Your task to perform on an android device: Search for "asus rog" on bestbuy.com, select the first entry, add it to the cart, then select checkout. Image 0: 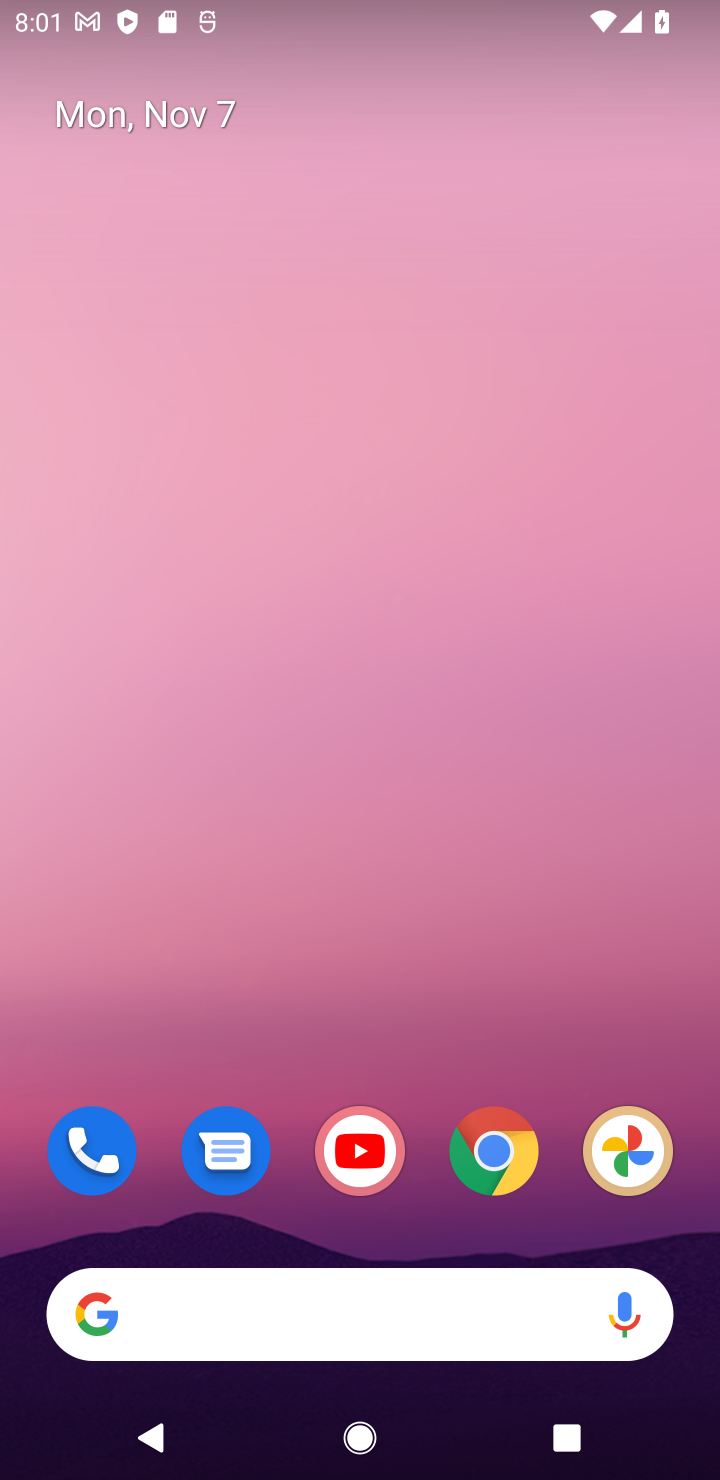
Step 0: click (516, 1142)
Your task to perform on an android device: Search for "asus rog" on bestbuy.com, select the first entry, add it to the cart, then select checkout. Image 1: 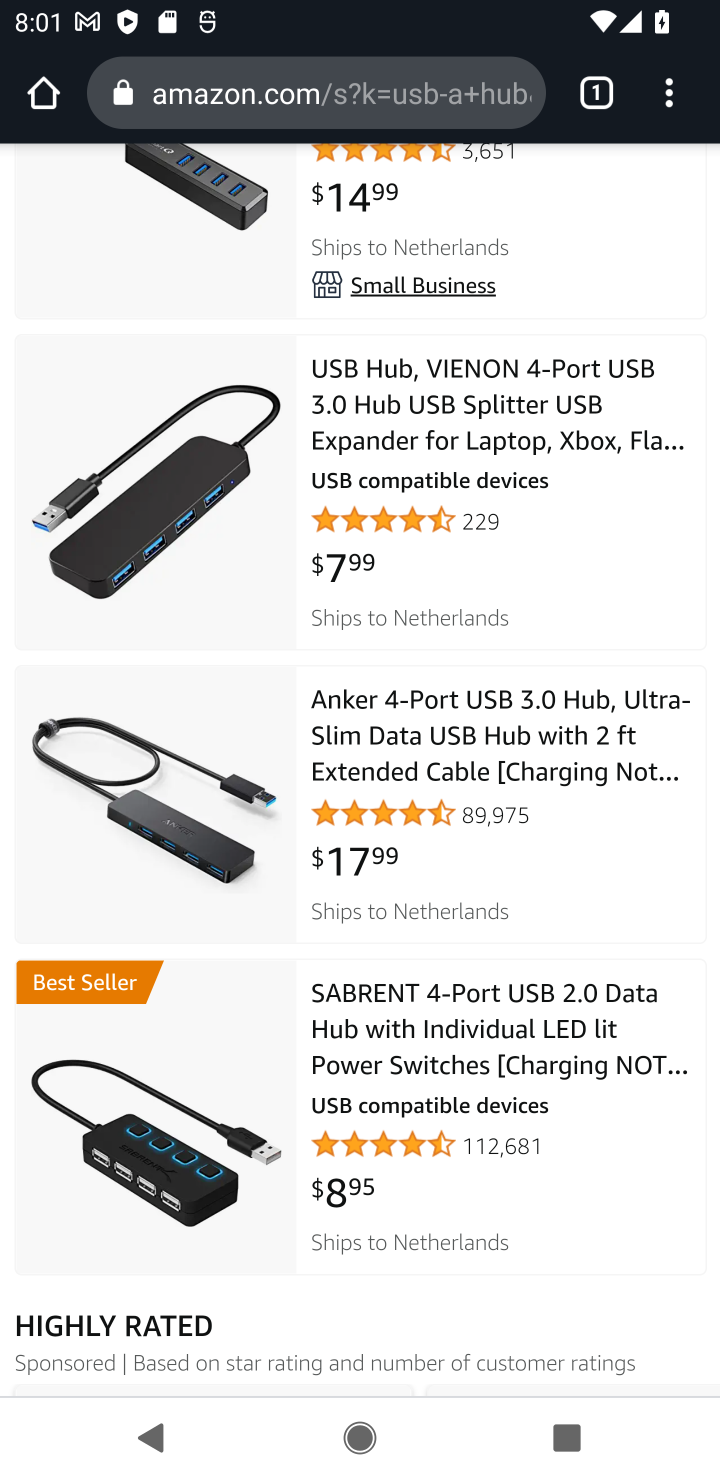
Step 1: click (329, 98)
Your task to perform on an android device: Search for "asus rog" on bestbuy.com, select the first entry, add it to the cart, then select checkout. Image 2: 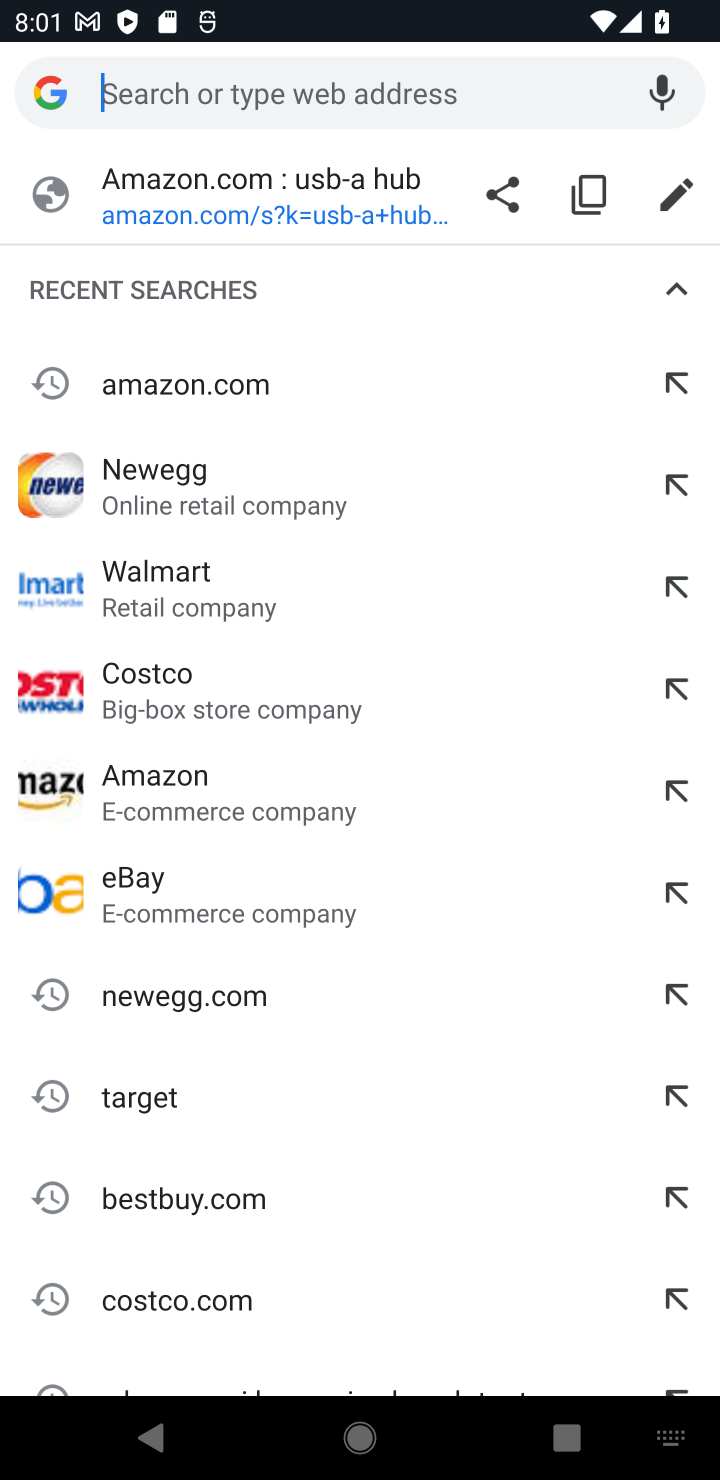
Step 2: type "bestbuy.com"
Your task to perform on an android device: Search for "asus rog" on bestbuy.com, select the first entry, add it to the cart, then select checkout. Image 3: 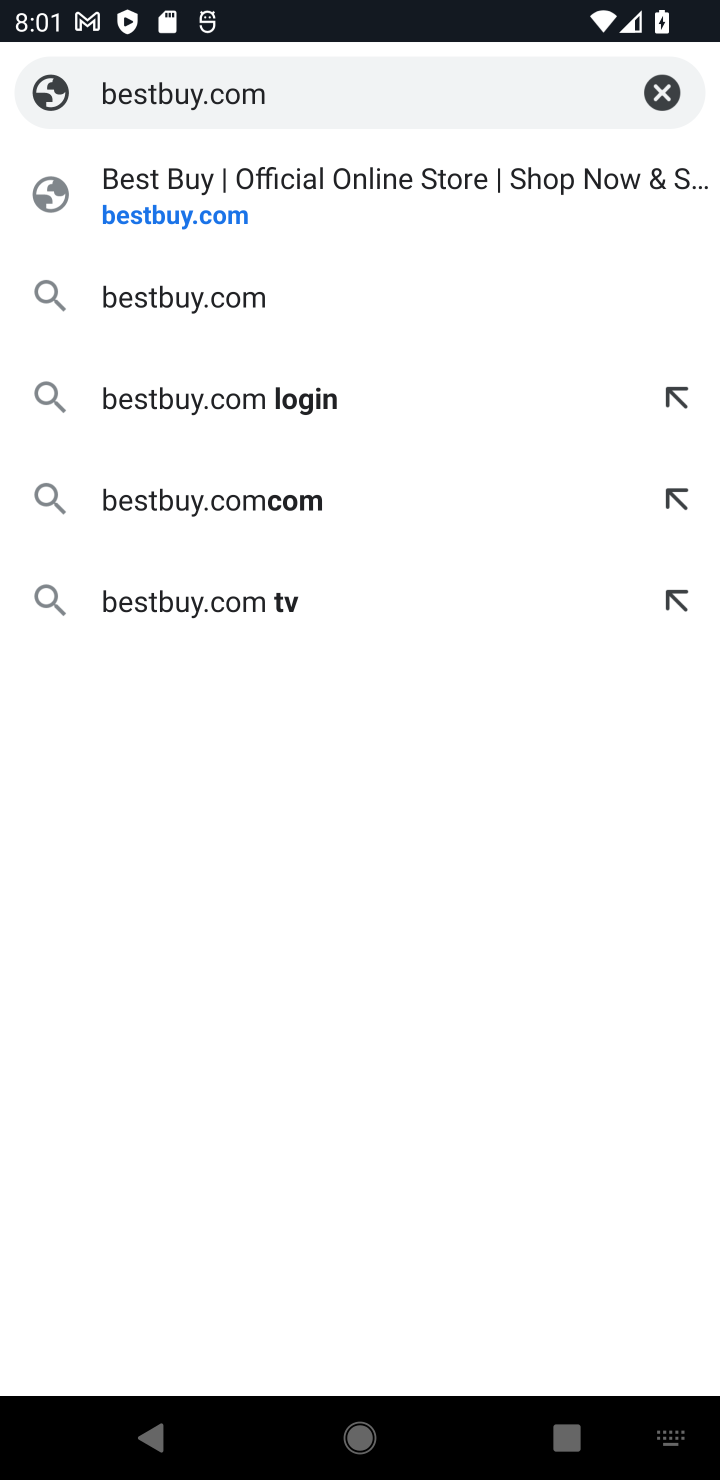
Step 3: click (211, 296)
Your task to perform on an android device: Search for "asus rog" on bestbuy.com, select the first entry, add it to the cart, then select checkout. Image 4: 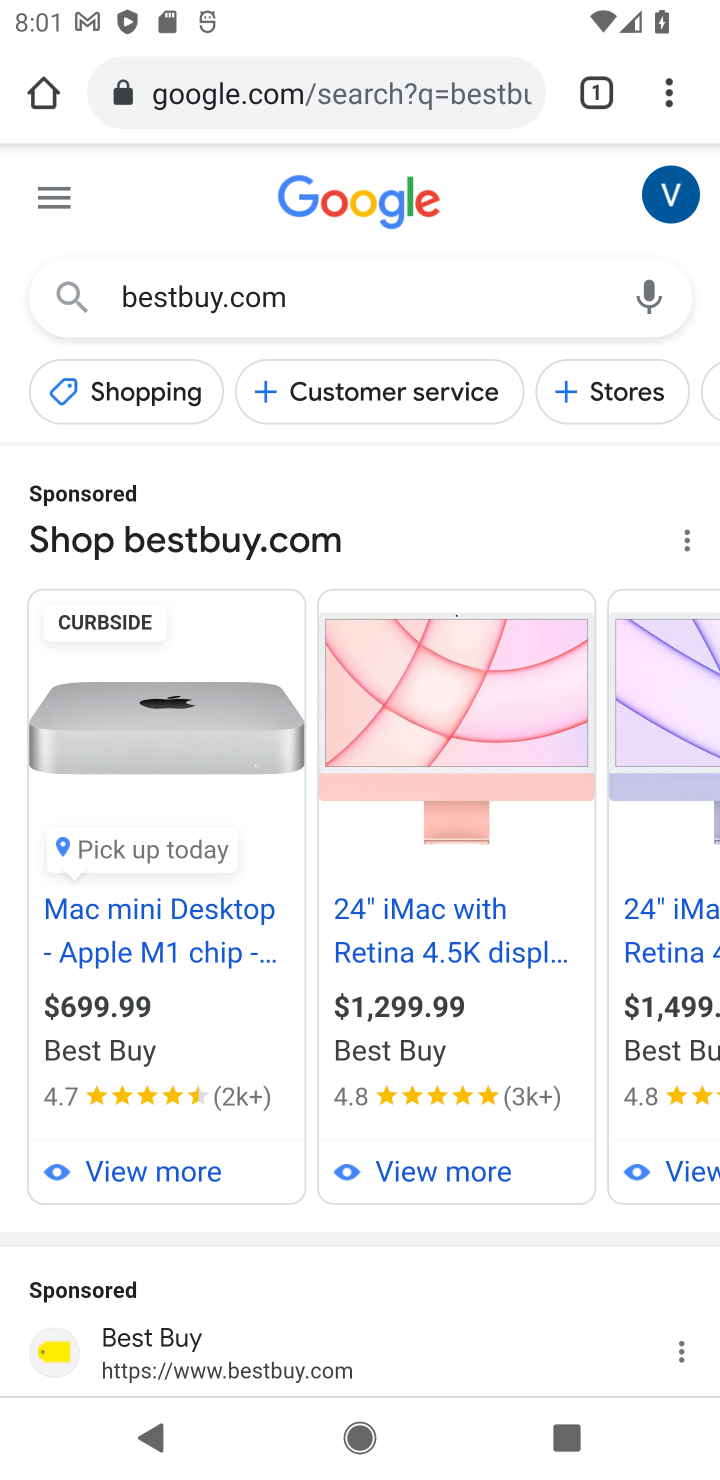
Step 4: click (297, 1360)
Your task to perform on an android device: Search for "asus rog" on bestbuy.com, select the first entry, add it to the cart, then select checkout. Image 5: 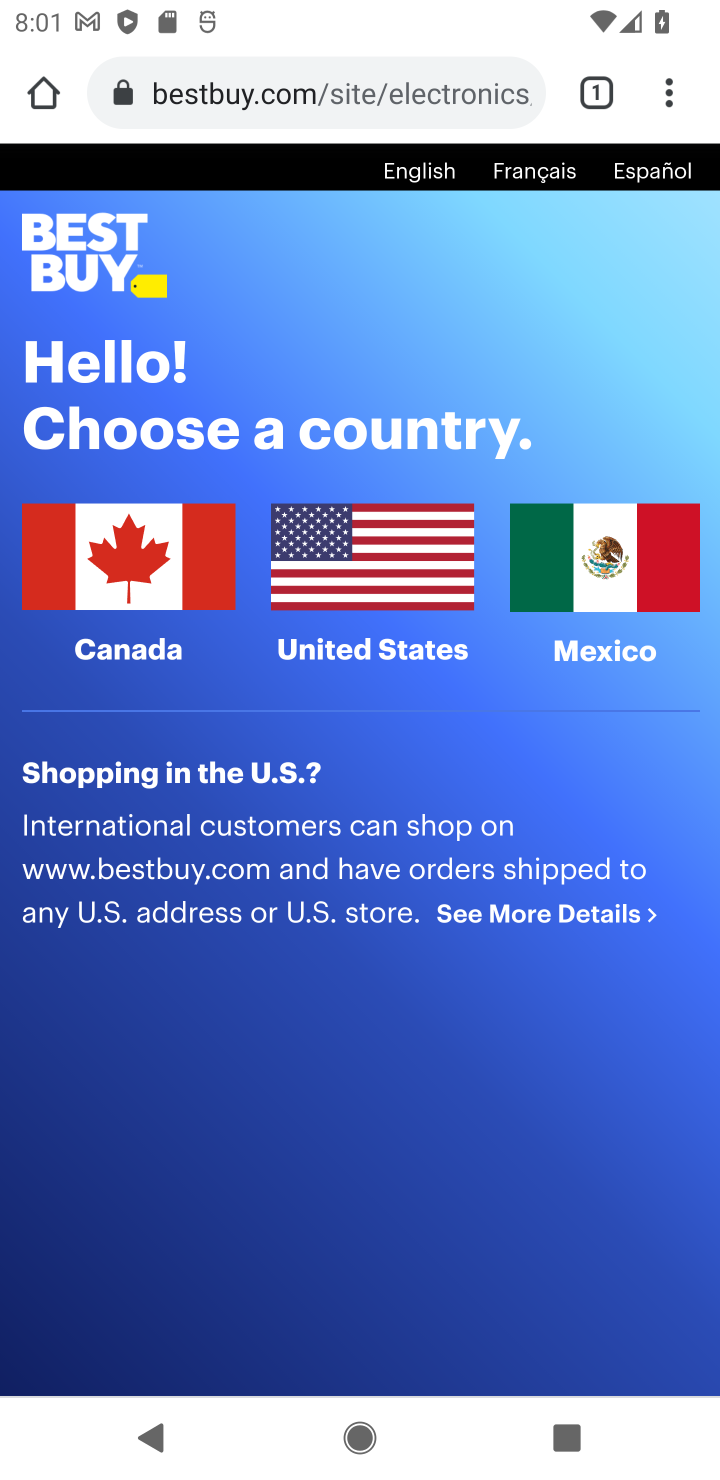
Step 5: click (371, 560)
Your task to perform on an android device: Search for "asus rog" on bestbuy.com, select the first entry, add it to the cart, then select checkout. Image 6: 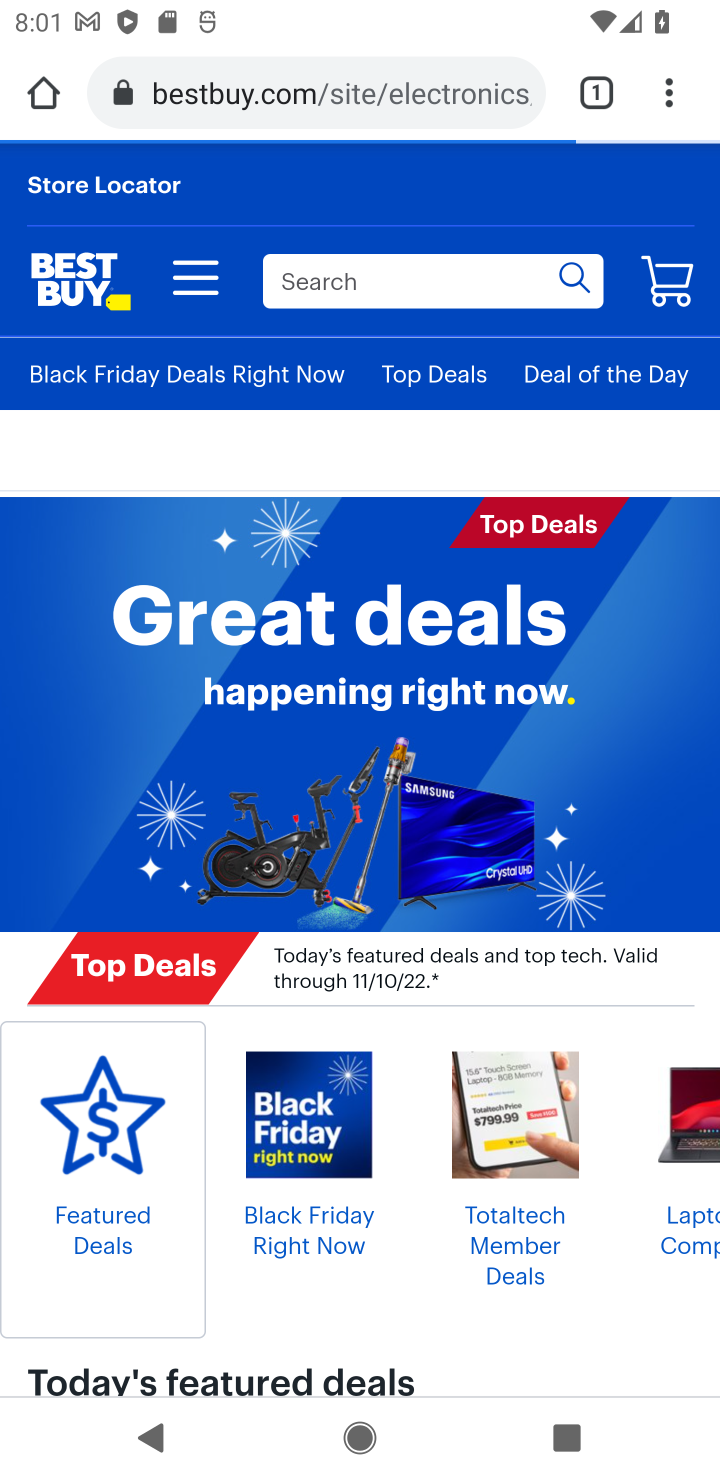
Step 6: click (377, 274)
Your task to perform on an android device: Search for "asus rog" on bestbuy.com, select the first entry, add it to the cart, then select checkout. Image 7: 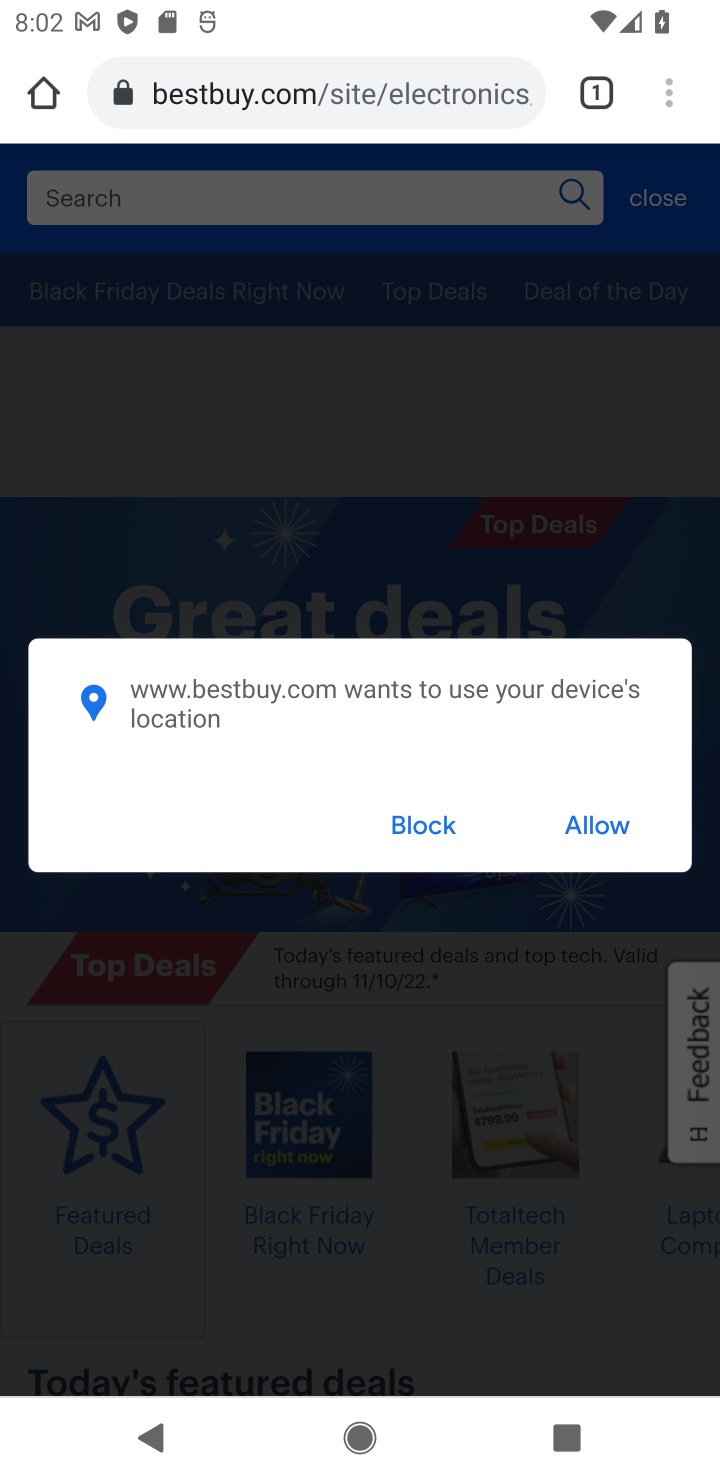
Step 7: click (421, 827)
Your task to perform on an android device: Search for "asus rog" on bestbuy.com, select the first entry, add it to the cart, then select checkout. Image 8: 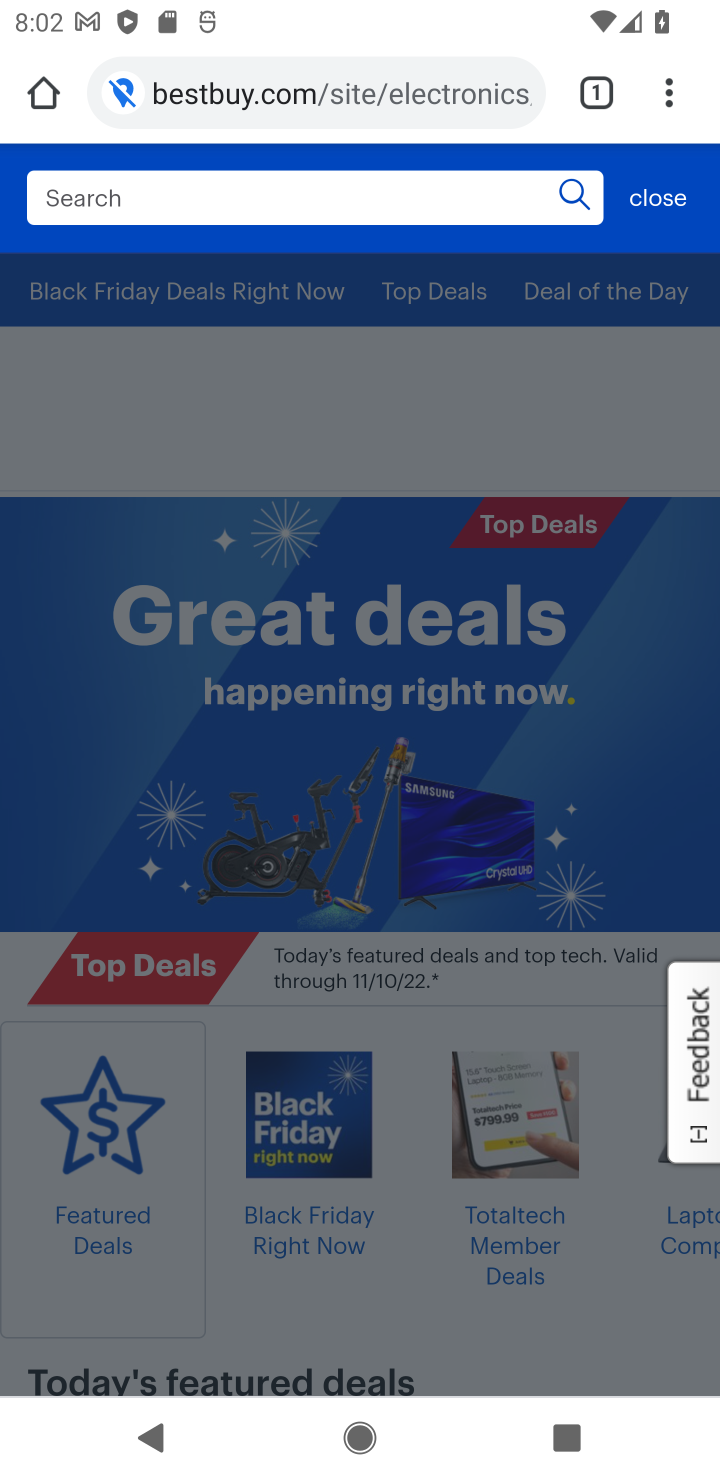
Step 8: click (442, 194)
Your task to perform on an android device: Search for "asus rog" on bestbuy.com, select the first entry, add it to the cart, then select checkout. Image 9: 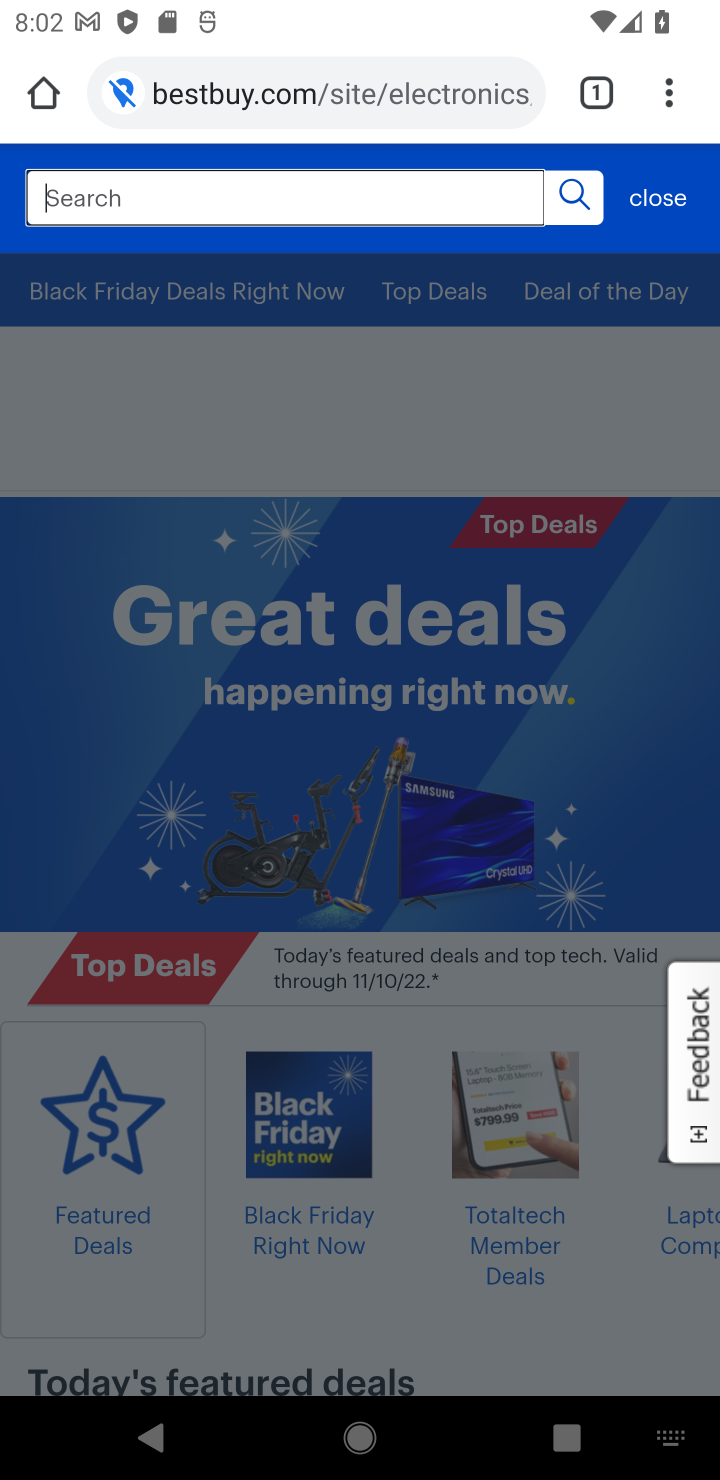
Step 9: type "asus rog"
Your task to perform on an android device: Search for "asus rog" on bestbuy.com, select the first entry, add it to the cart, then select checkout. Image 10: 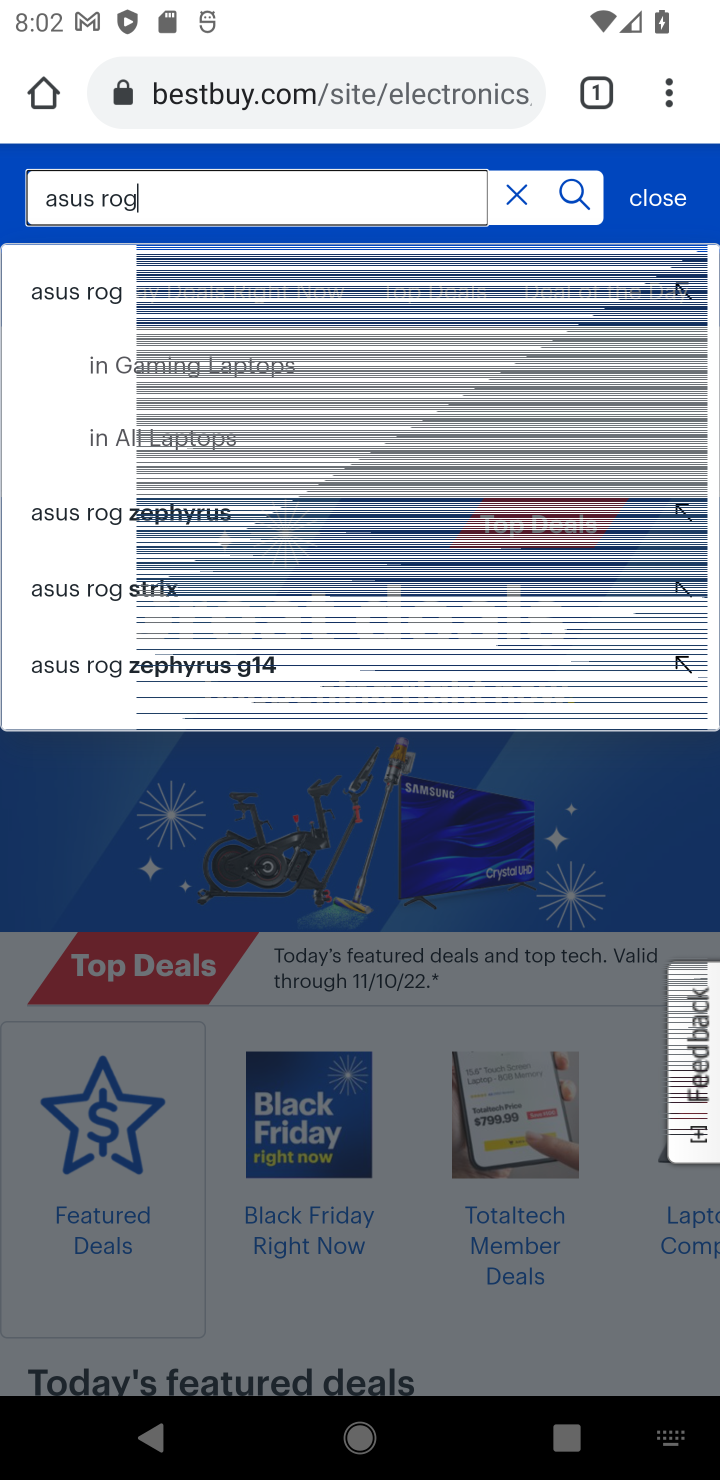
Step 10: click (99, 291)
Your task to perform on an android device: Search for "asus rog" on bestbuy.com, select the first entry, add it to the cart, then select checkout. Image 11: 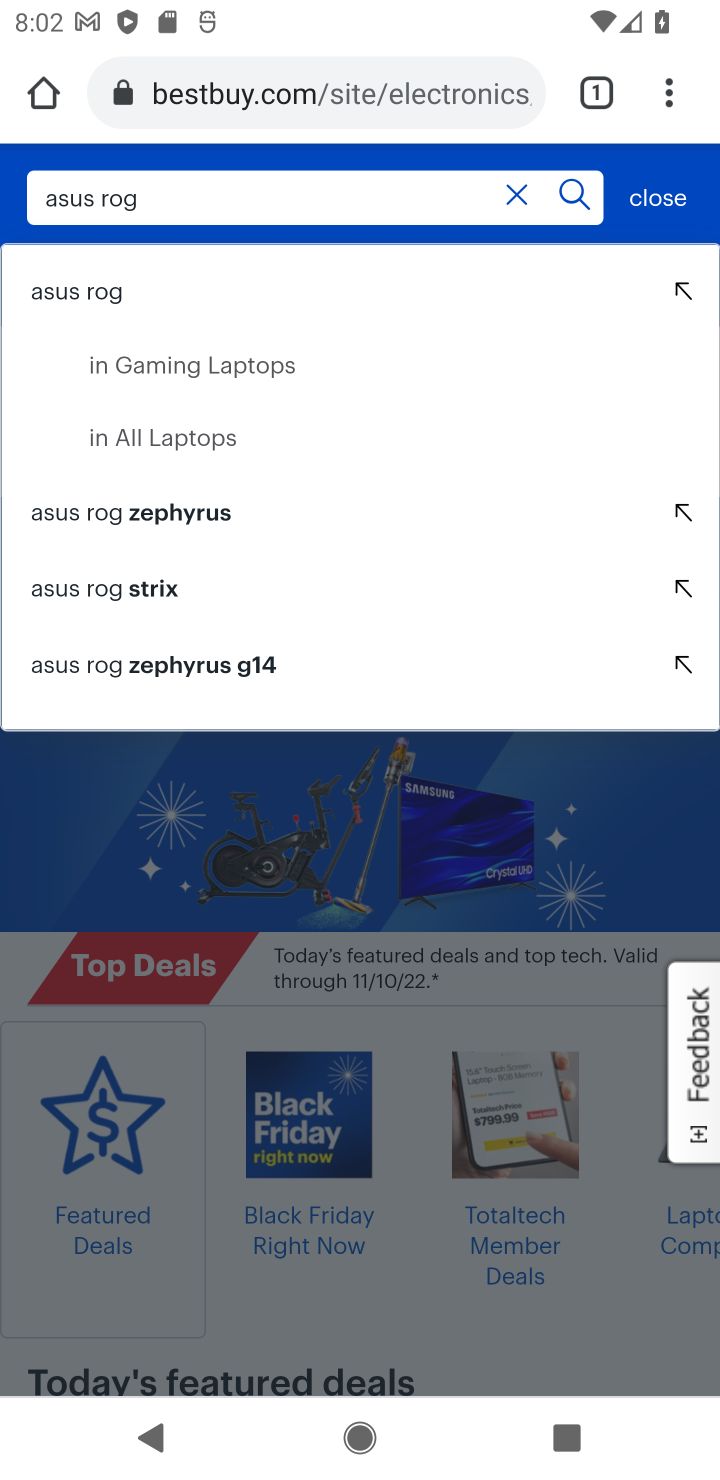
Step 11: click (99, 291)
Your task to perform on an android device: Search for "asus rog" on bestbuy.com, select the first entry, add it to the cart, then select checkout. Image 12: 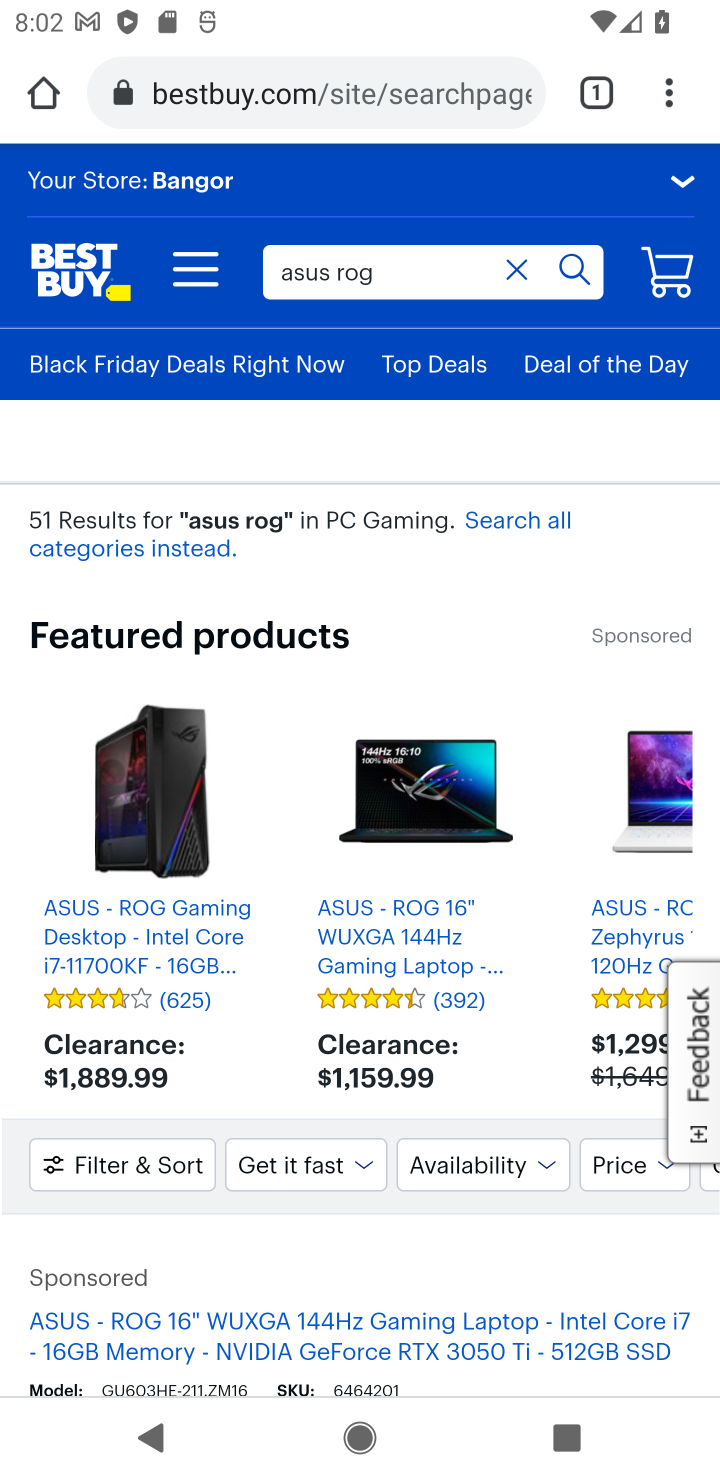
Step 12: drag from (286, 975) to (311, 380)
Your task to perform on an android device: Search for "asus rog" on bestbuy.com, select the first entry, add it to the cart, then select checkout. Image 13: 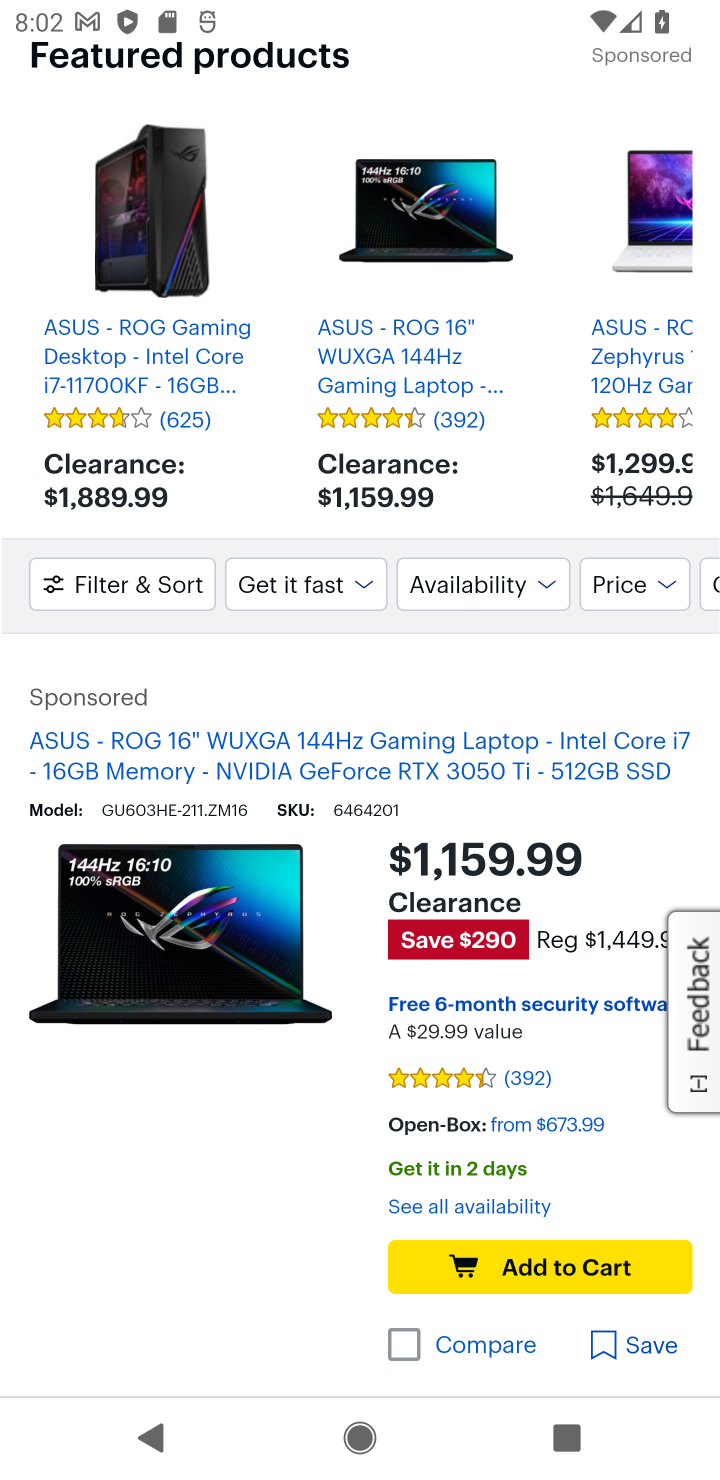
Step 13: drag from (243, 1133) to (237, 742)
Your task to perform on an android device: Search for "asus rog" on bestbuy.com, select the first entry, add it to the cart, then select checkout. Image 14: 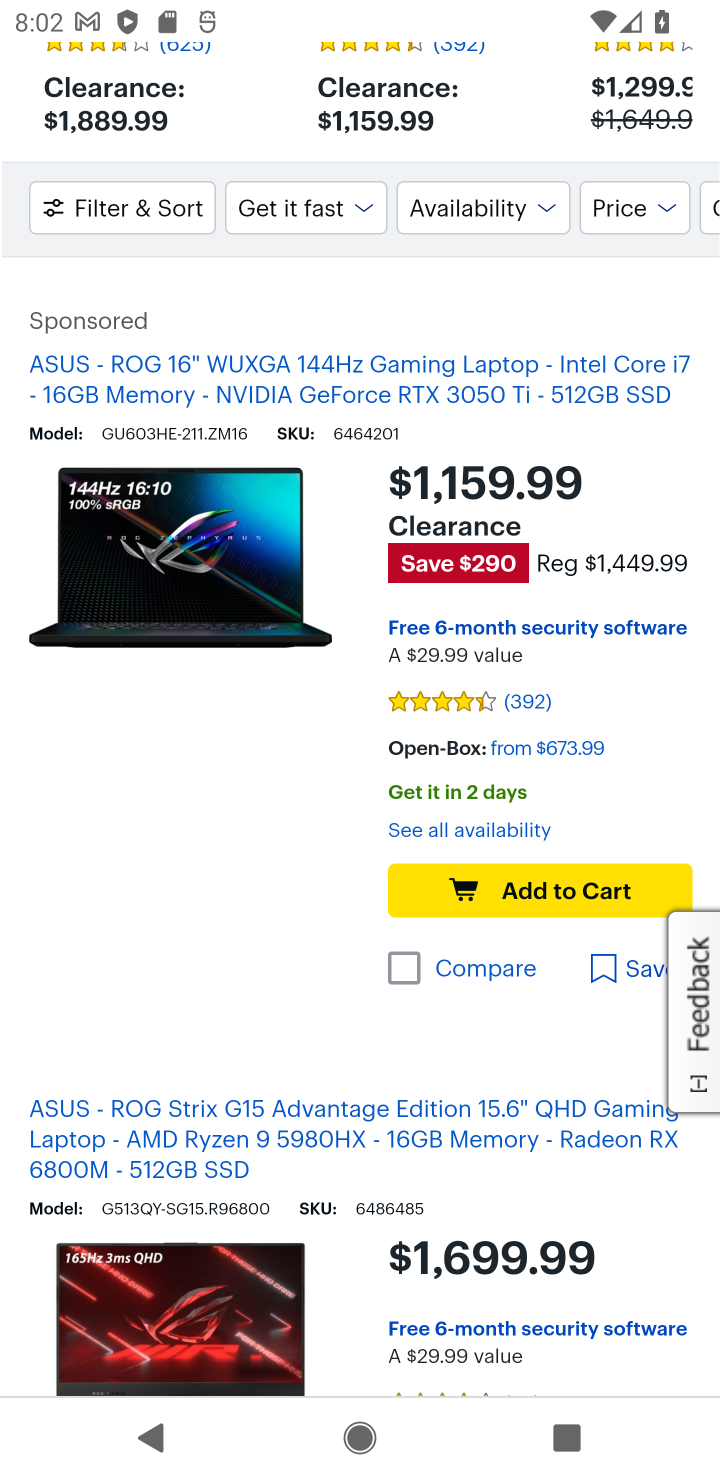
Step 14: drag from (446, 1205) to (520, 731)
Your task to perform on an android device: Search for "asus rog" on bestbuy.com, select the first entry, add it to the cart, then select checkout. Image 15: 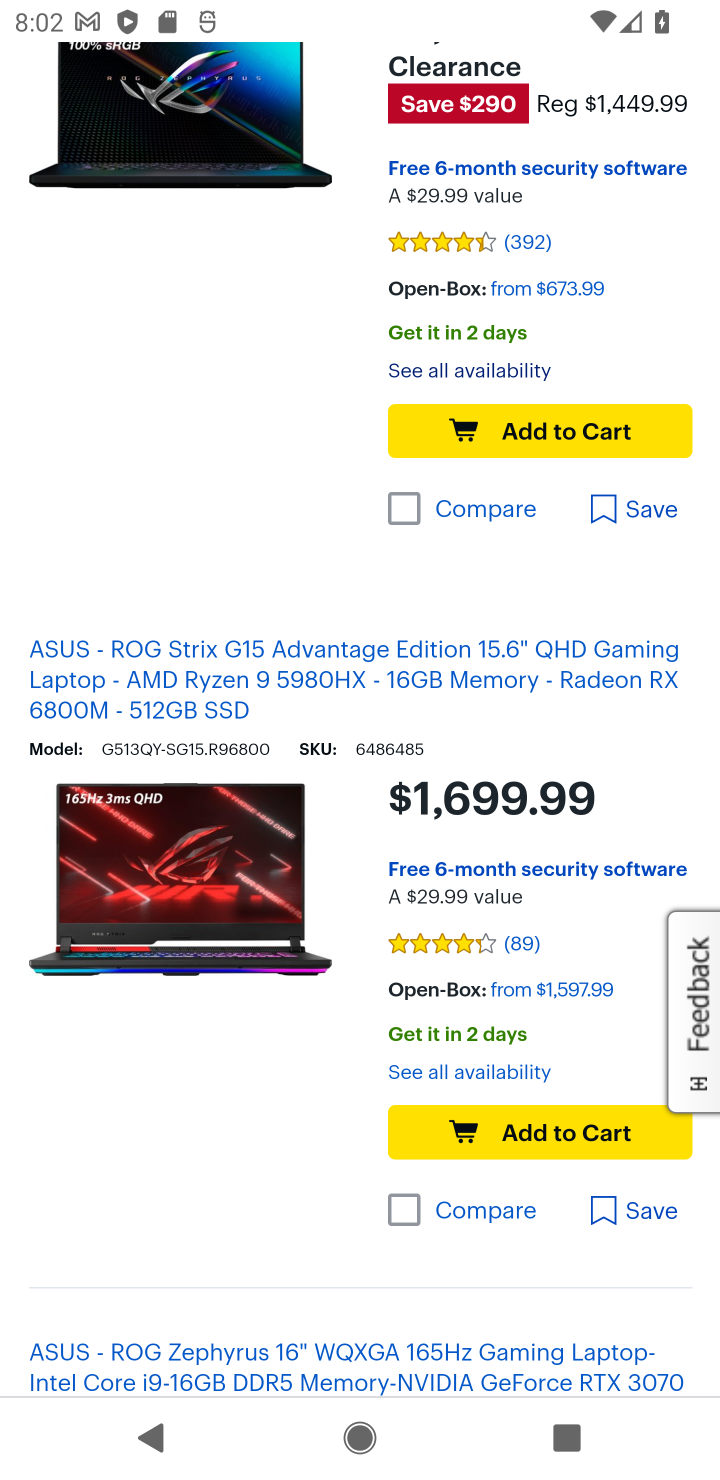
Step 15: click (173, 875)
Your task to perform on an android device: Search for "asus rog" on bestbuy.com, select the first entry, add it to the cart, then select checkout. Image 16: 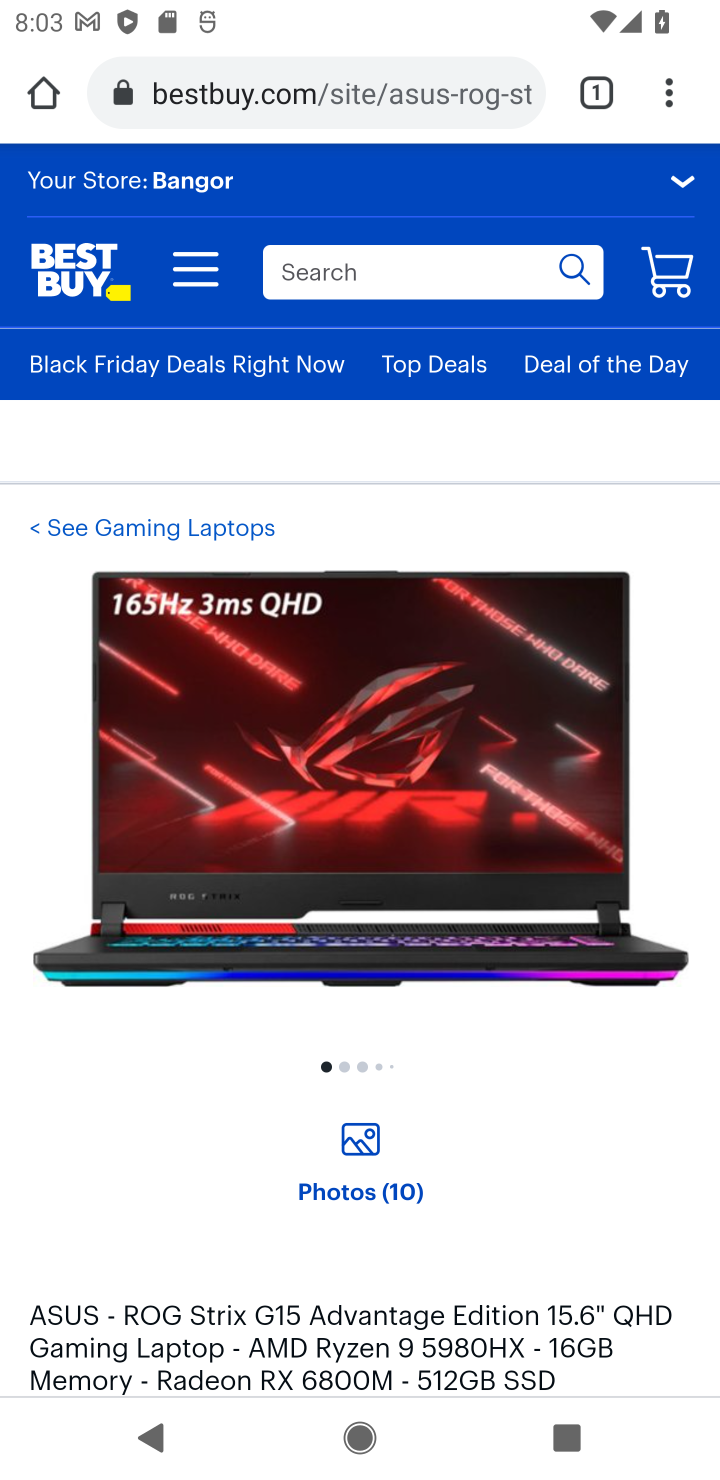
Step 16: drag from (545, 989) to (542, 547)
Your task to perform on an android device: Search for "asus rog" on bestbuy.com, select the first entry, add it to the cart, then select checkout. Image 17: 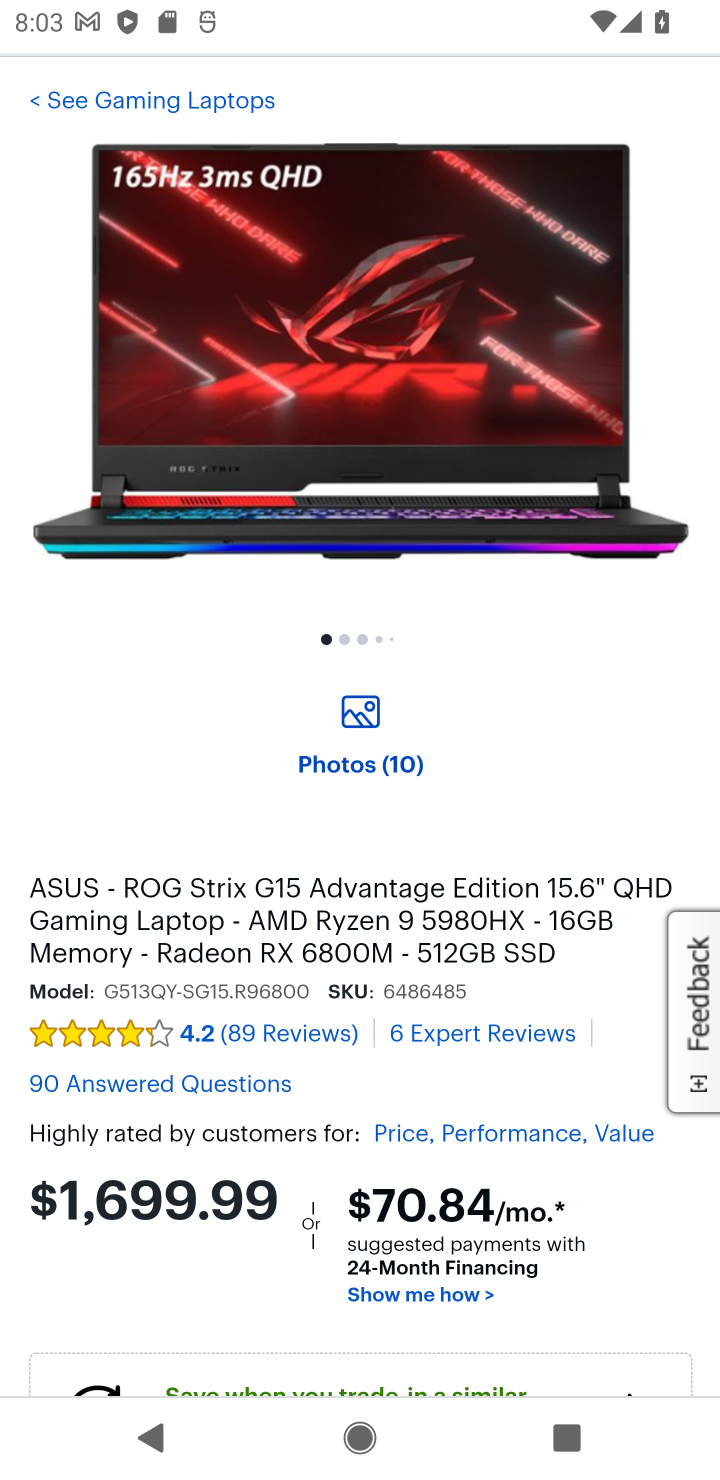
Step 17: drag from (624, 1042) to (606, 566)
Your task to perform on an android device: Search for "asus rog" on bestbuy.com, select the first entry, add it to the cart, then select checkout. Image 18: 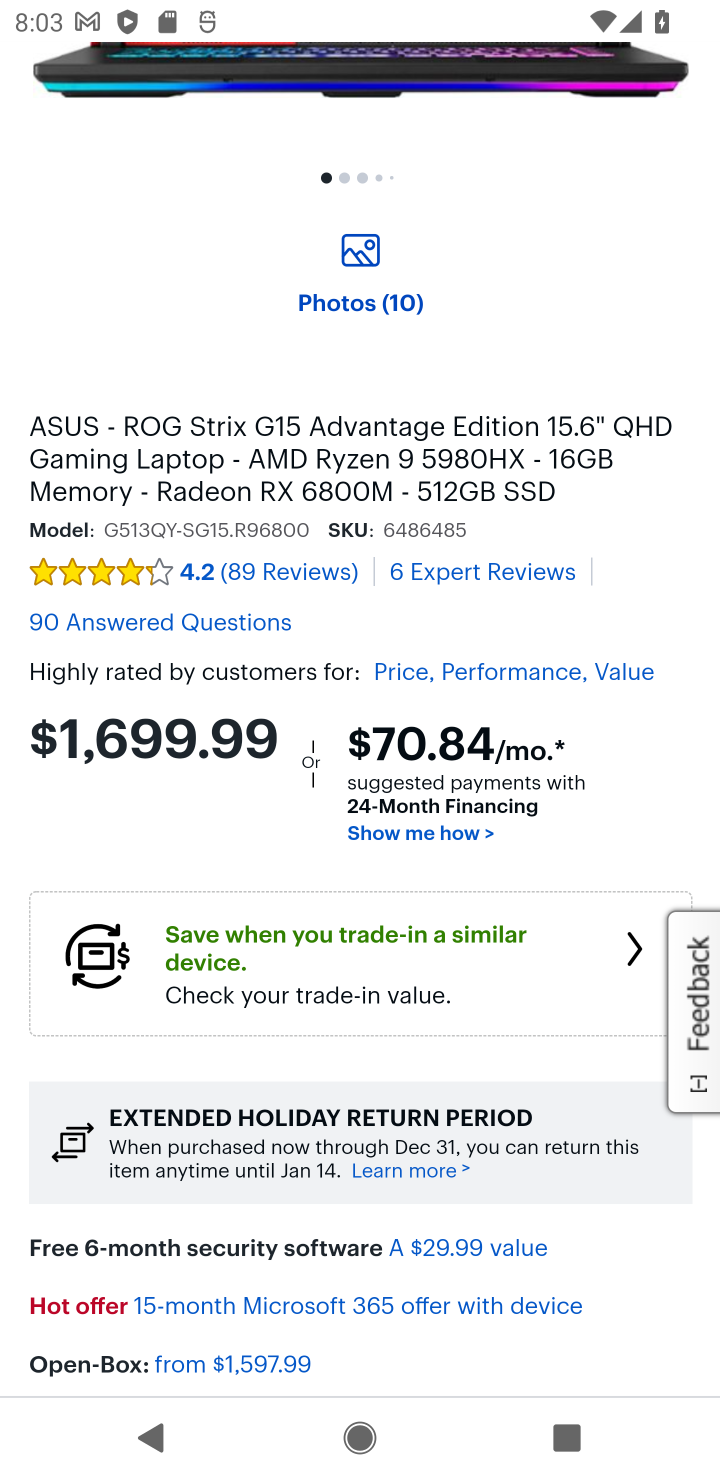
Step 18: drag from (628, 1208) to (519, 438)
Your task to perform on an android device: Search for "asus rog" on bestbuy.com, select the first entry, add it to the cart, then select checkout. Image 19: 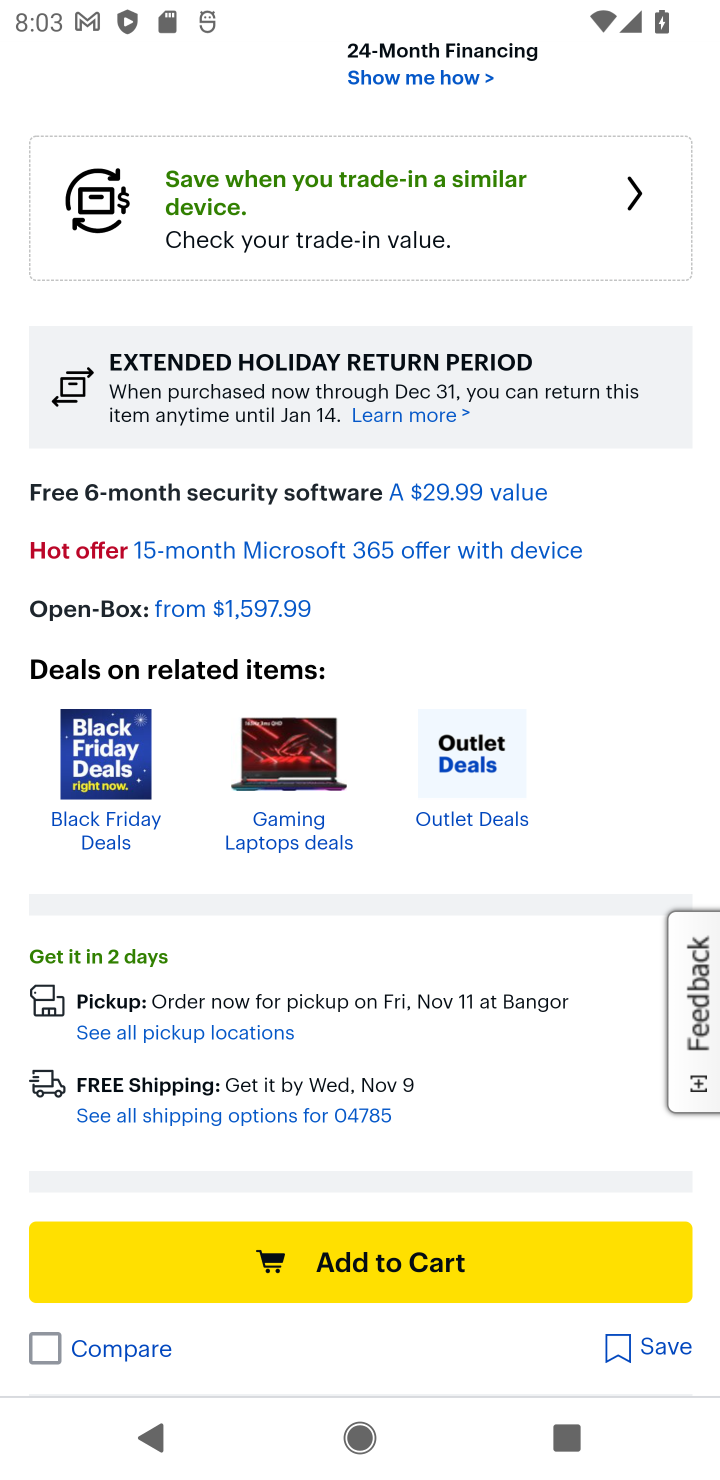
Step 19: click (418, 1253)
Your task to perform on an android device: Search for "asus rog" on bestbuy.com, select the first entry, add it to the cart, then select checkout. Image 20: 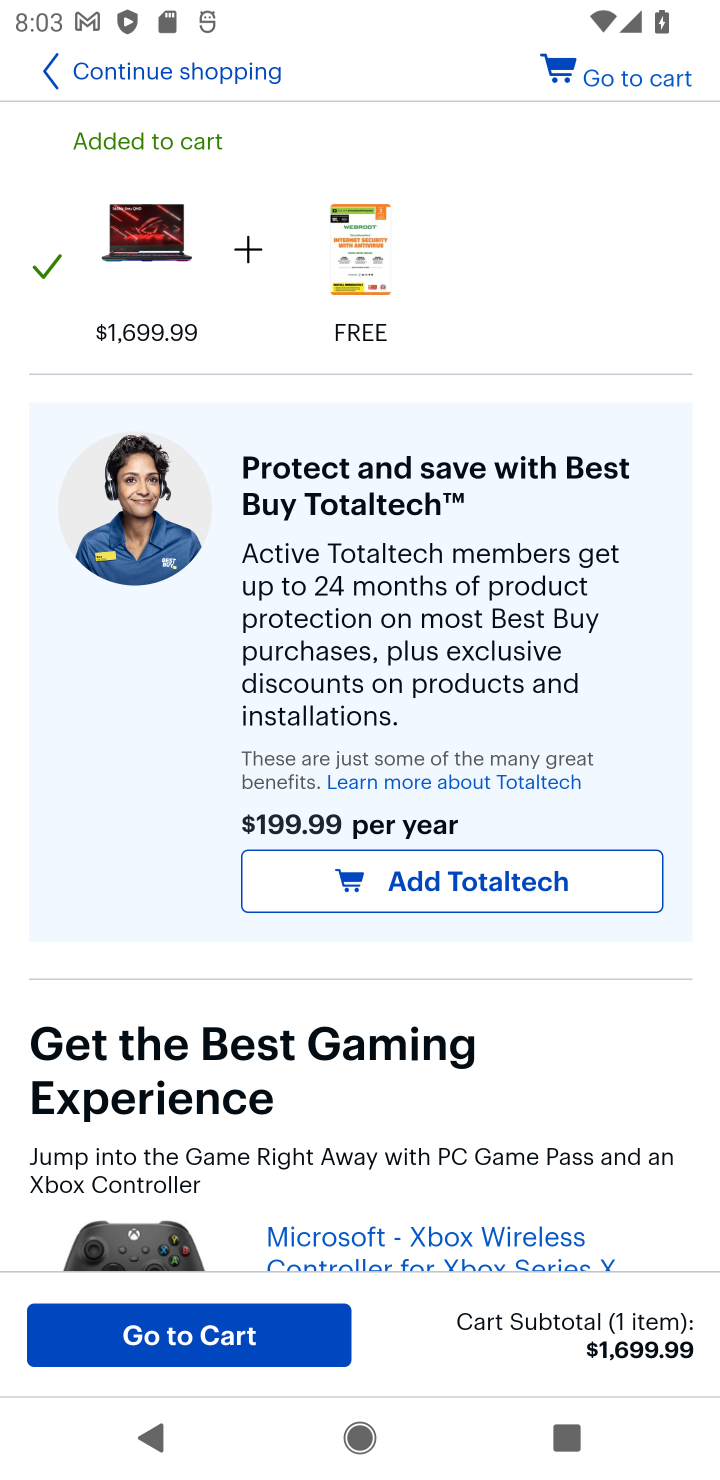
Step 20: click (211, 1331)
Your task to perform on an android device: Search for "asus rog" on bestbuy.com, select the first entry, add it to the cart, then select checkout. Image 21: 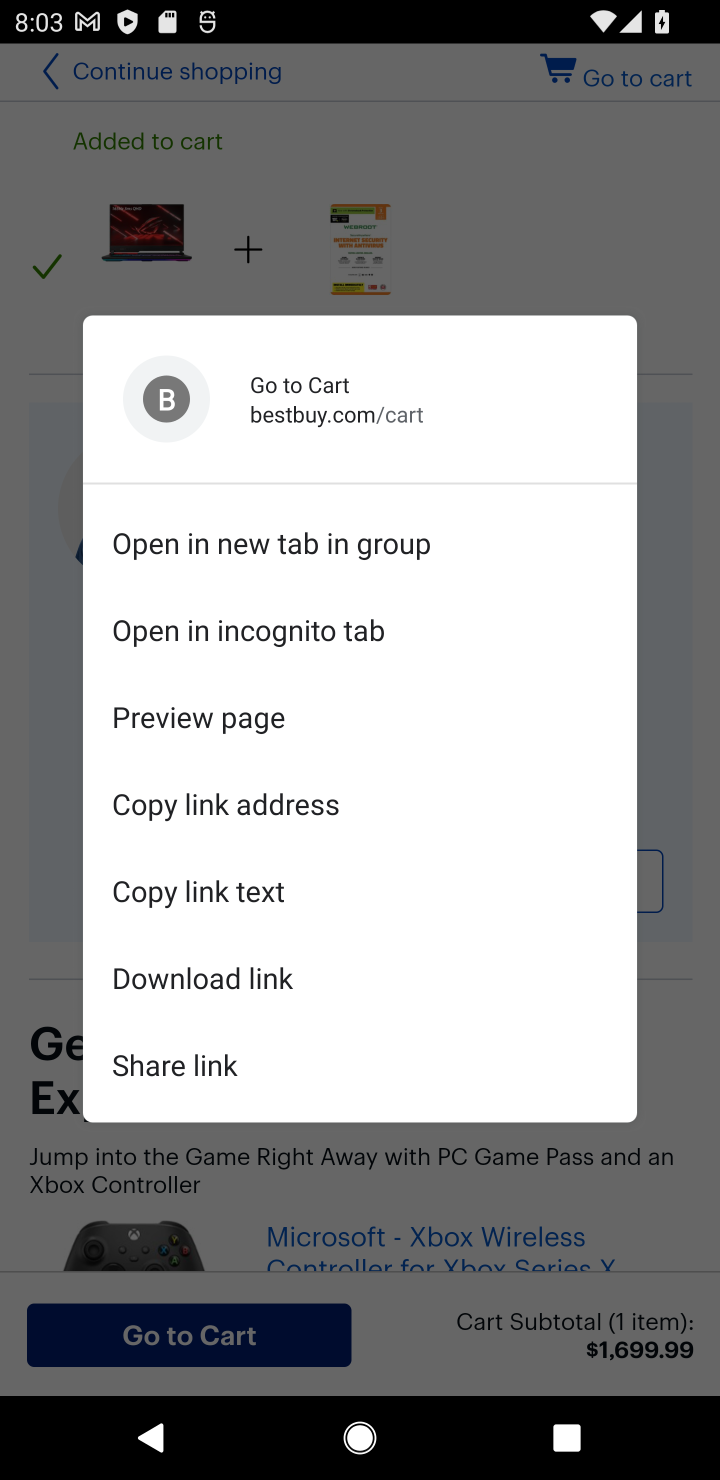
Step 21: click (247, 1199)
Your task to perform on an android device: Search for "asus rog" on bestbuy.com, select the first entry, add it to the cart, then select checkout. Image 22: 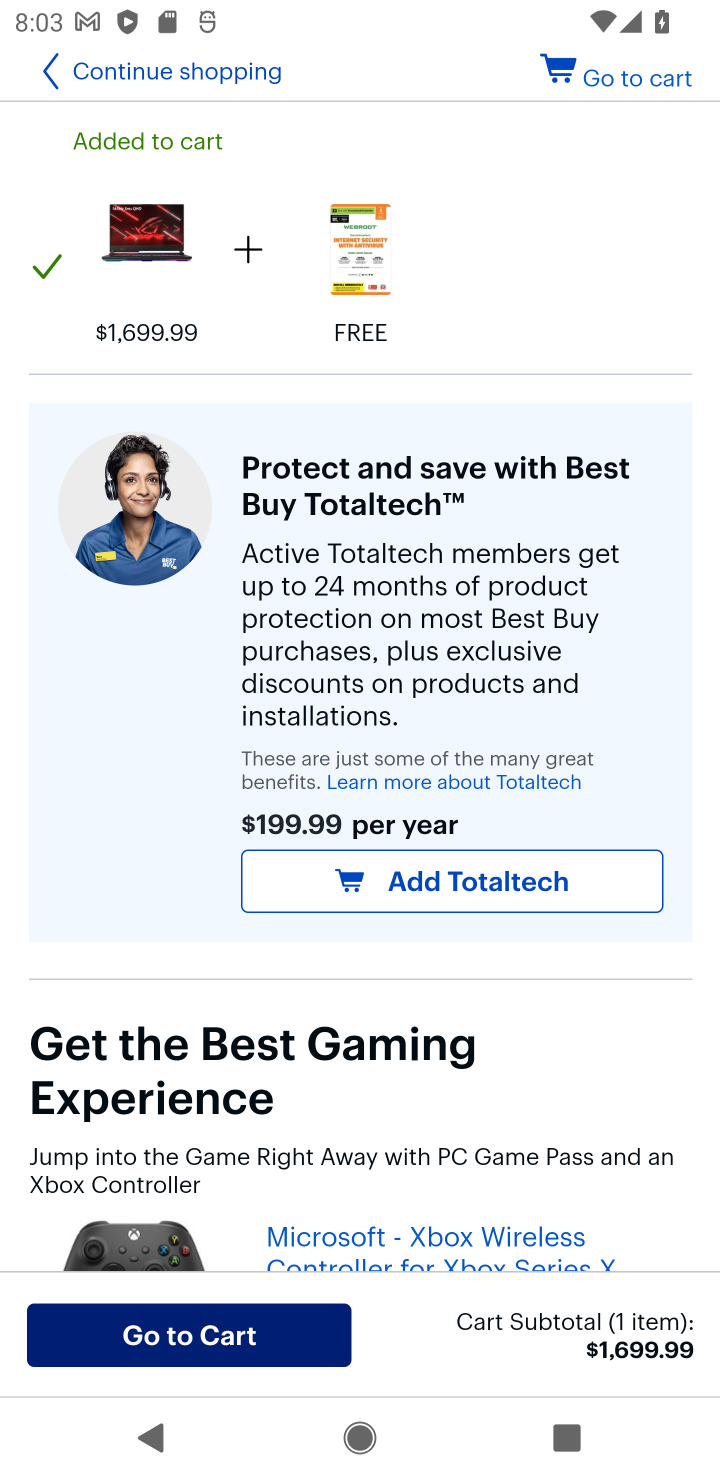
Step 22: click (228, 1327)
Your task to perform on an android device: Search for "asus rog" on bestbuy.com, select the first entry, add it to the cart, then select checkout. Image 23: 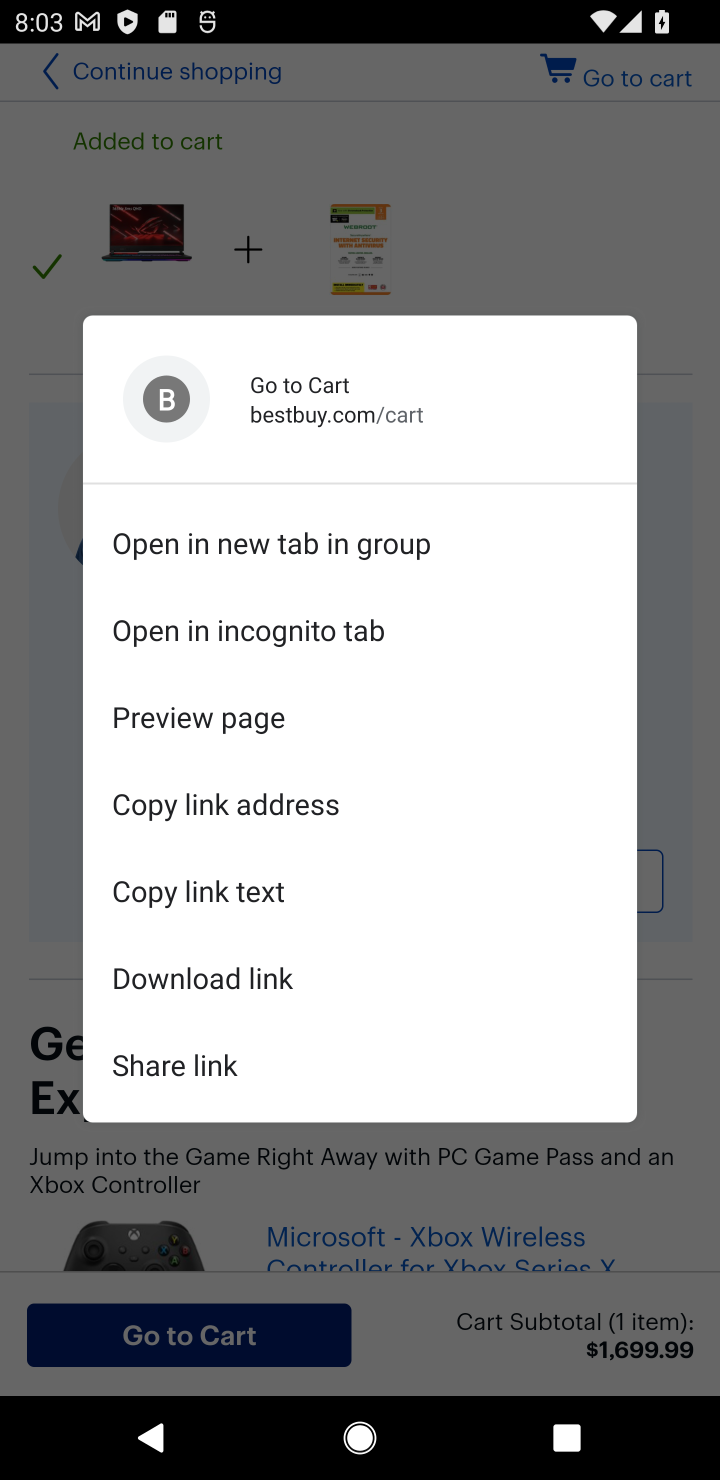
Step 23: click (229, 1326)
Your task to perform on an android device: Search for "asus rog" on bestbuy.com, select the first entry, add it to the cart, then select checkout. Image 24: 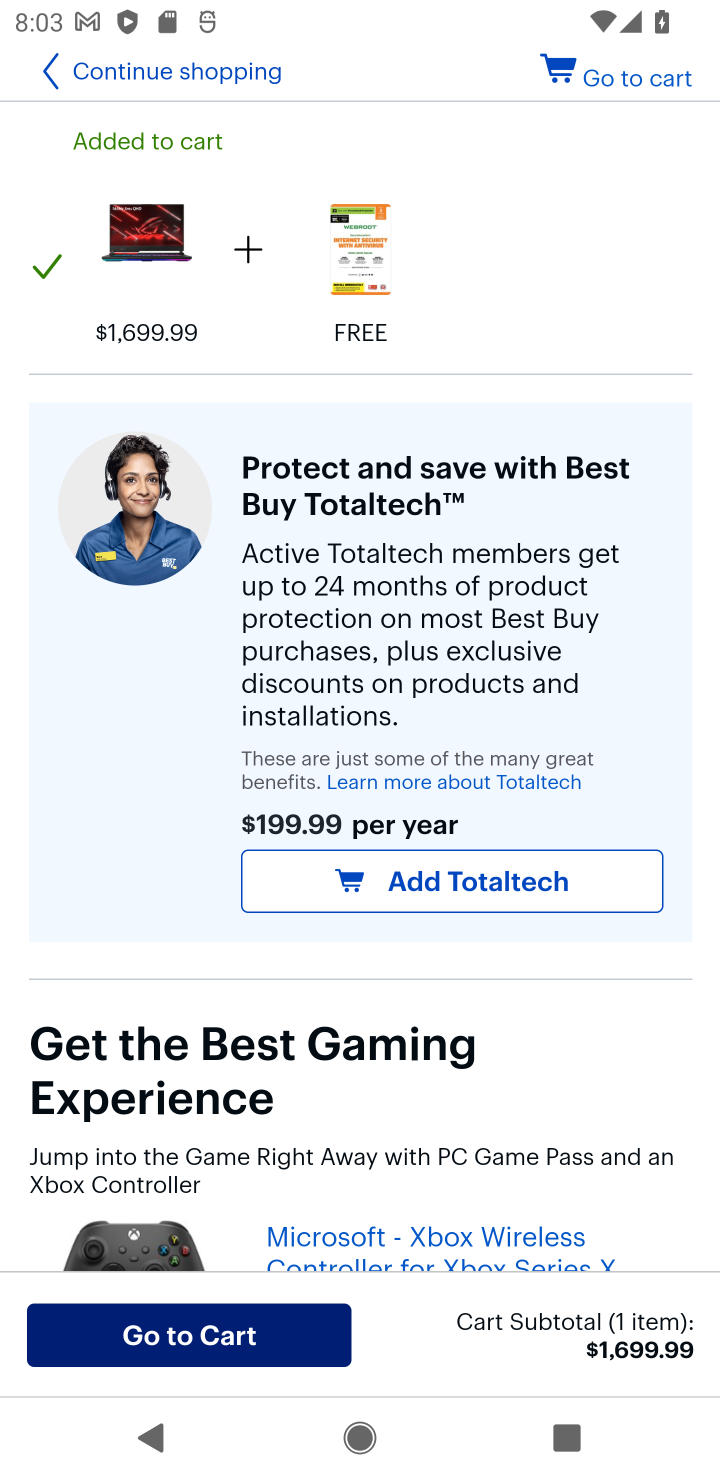
Step 24: click (229, 1326)
Your task to perform on an android device: Search for "asus rog" on bestbuy.com, select the first entry, add it to the cart, then select checkout. Image 25: 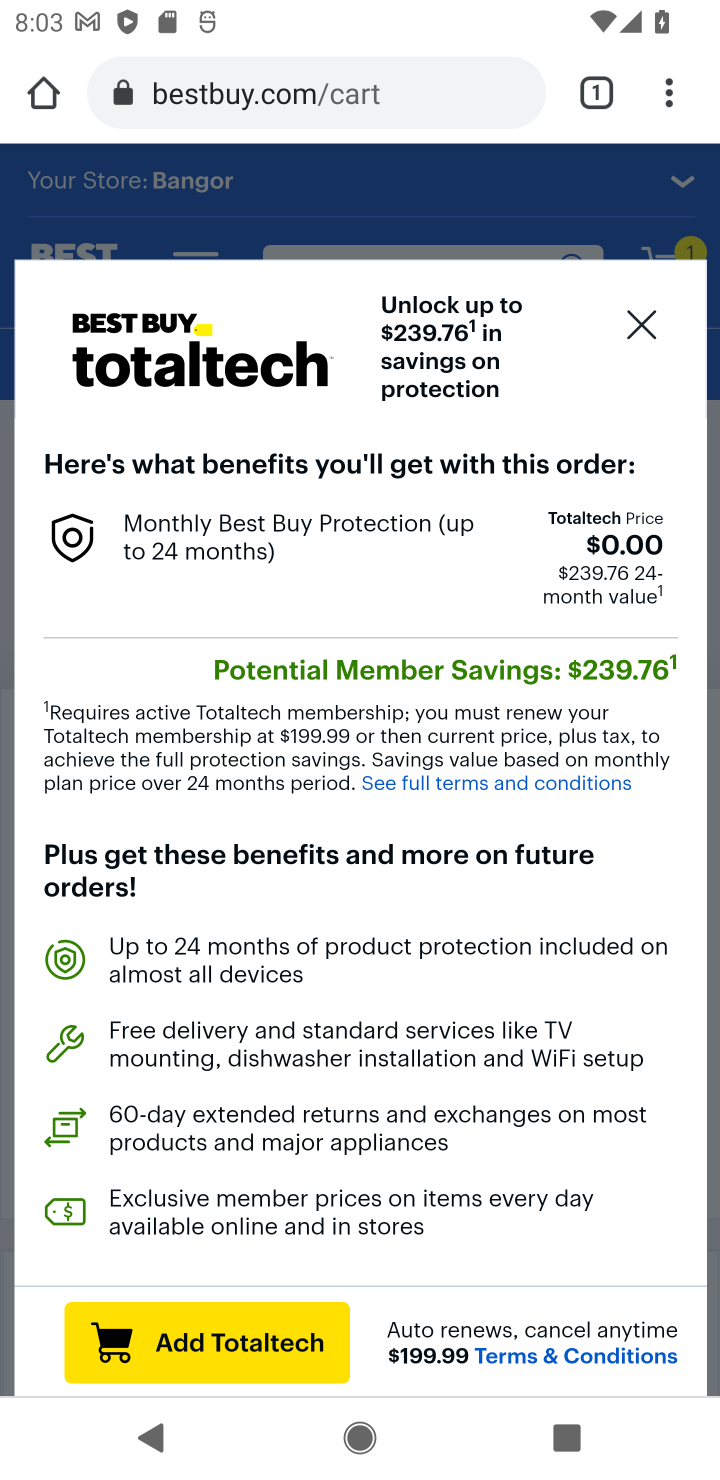
Step 25: click (366, 1145)
Your task to perform on an android device: Search for "asus rog" on bestbuy.com, select the first entry, add it to the cart, then select checkout. Image 26: 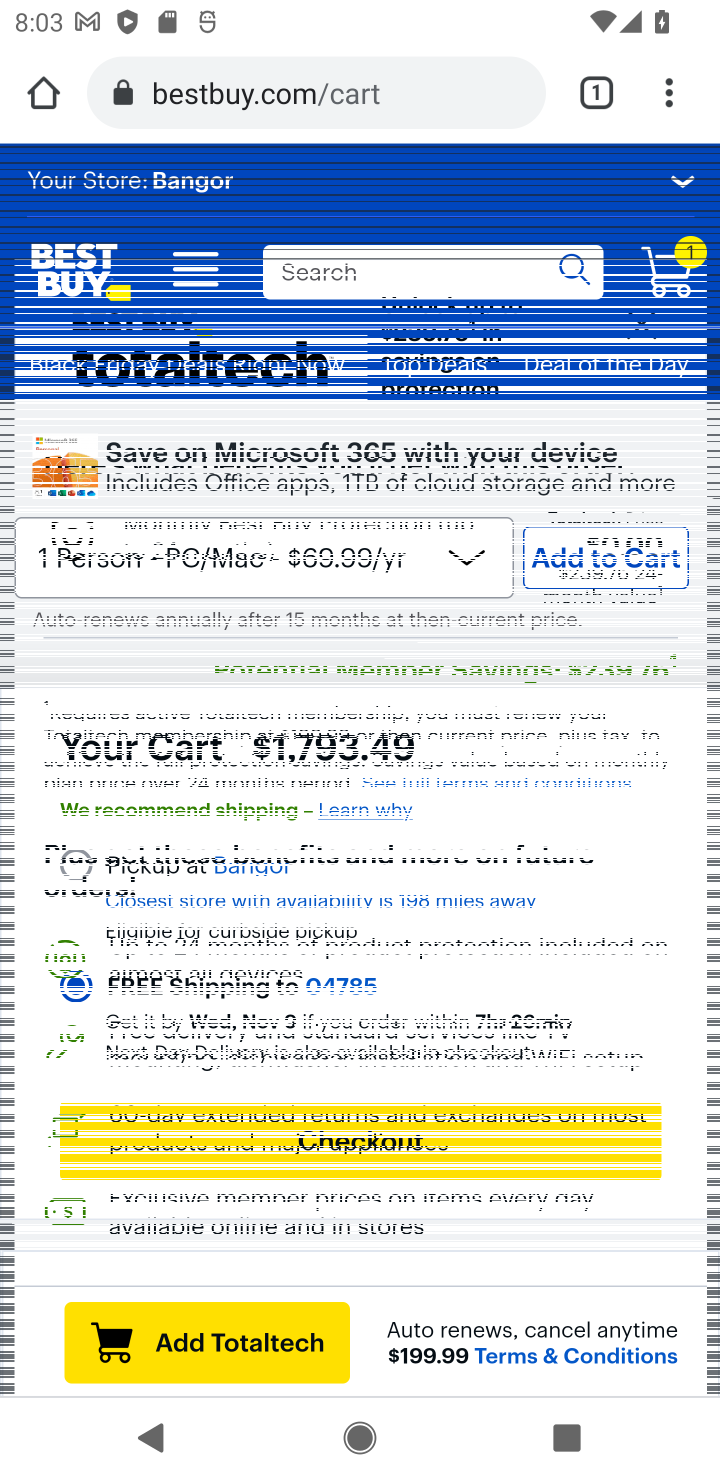
Step 26: click (642, 318)
Your task to perform on an android device: Search for "asus rog" on bestbuy.com, select the first entry, add it to the cart, then select checkout. Image 27: 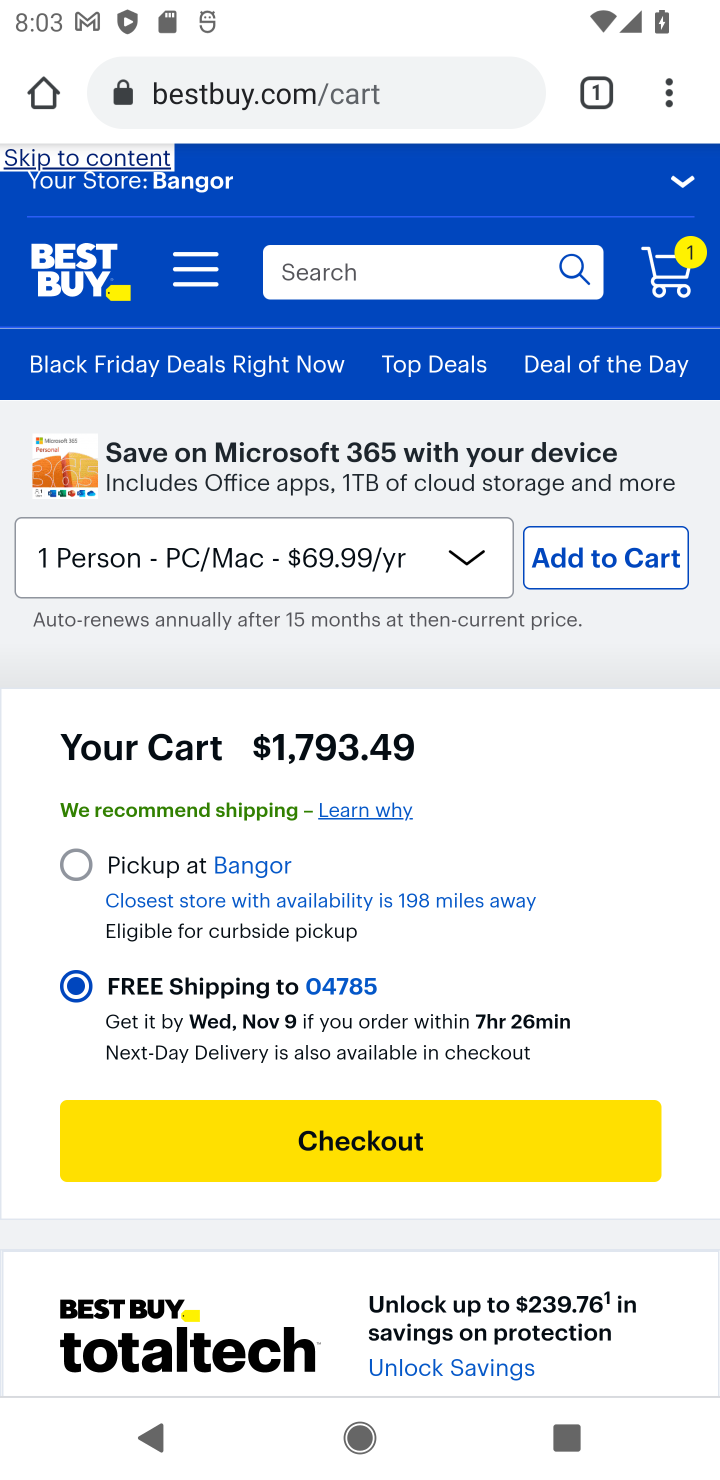
Step 27: click (413, 1144)
Your task to perform on an android device: Search for "asus rog" on bestbuy.com, select the first entry, add it to the cart, then select checkout. Image 28: 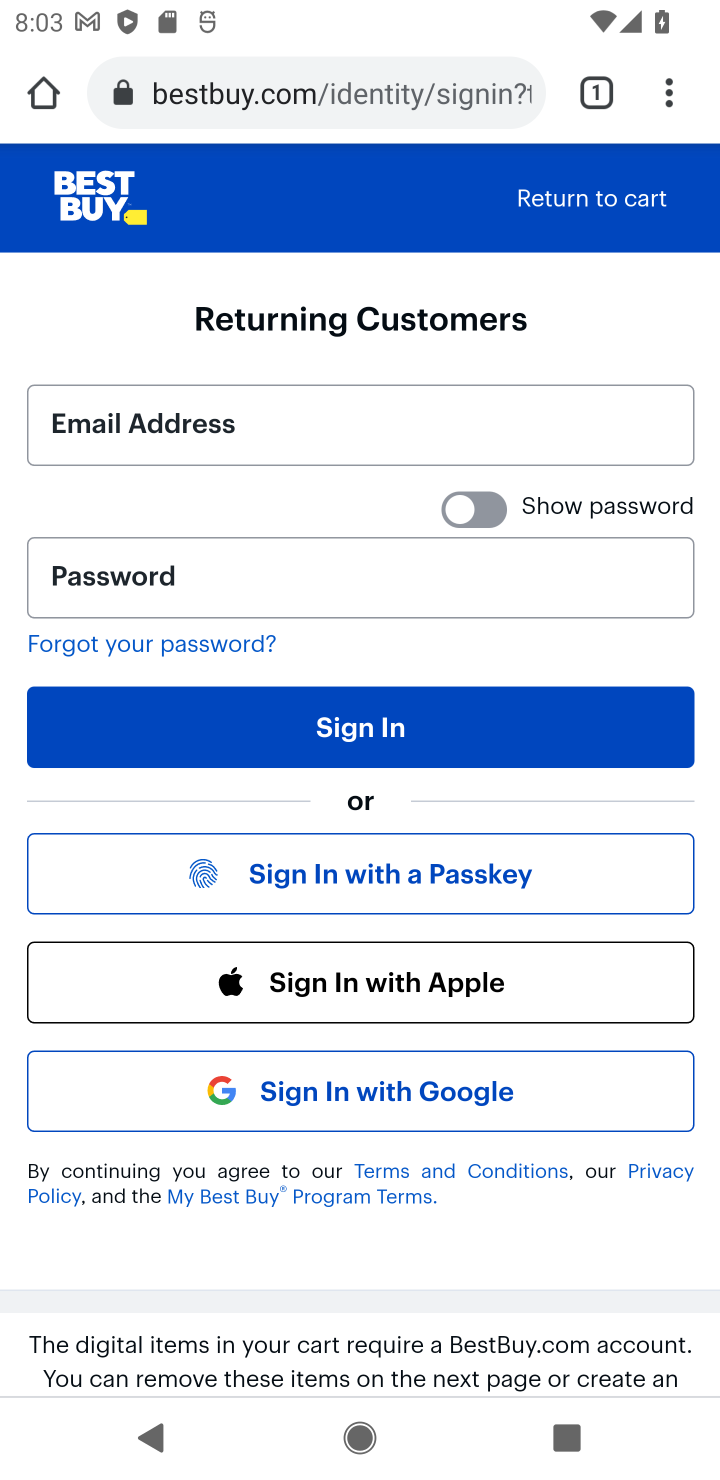
Step 28: task complete